Your task to perform on an android device: change timer sound Image 0: 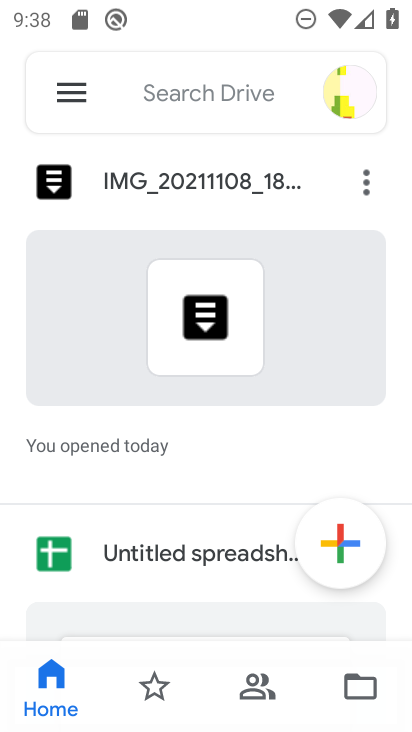
Step 0: press home button
Your task to perform on an android device: change timer sound Image 1: 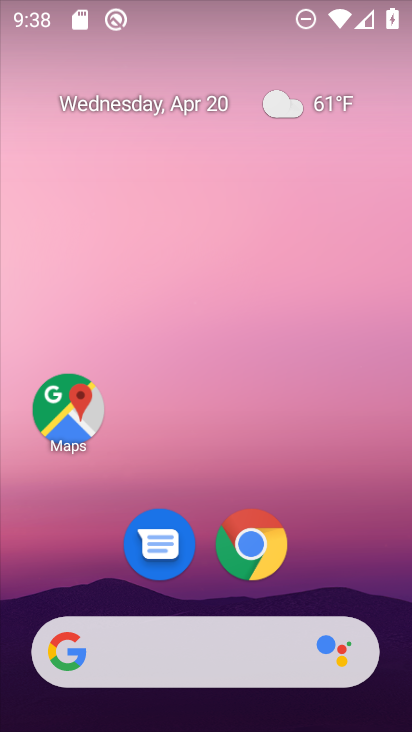
Step 1: drag from (320, 502) to (291, 16)
Your task to perform on an android device: change timer sound Image 2: 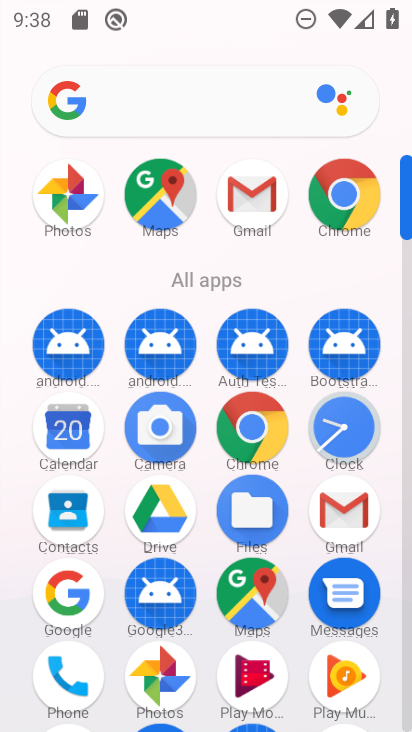
Step 2: click (342, 431)
Your task to perform on an android device: change timer sound Image 3: 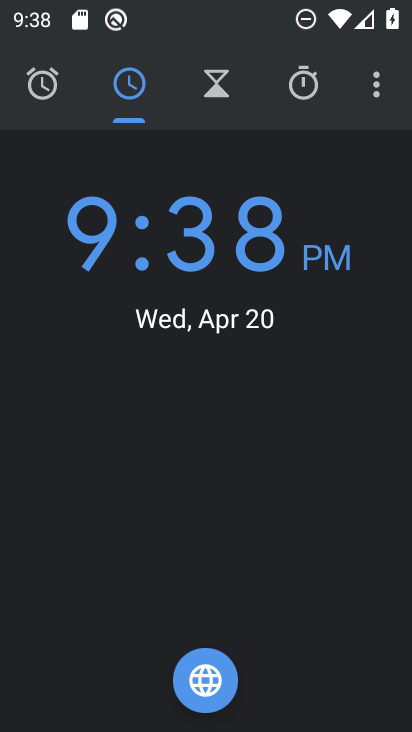
Step 3: click (389, 96)
Your task to perform on an android device: change timer sound Image 4: 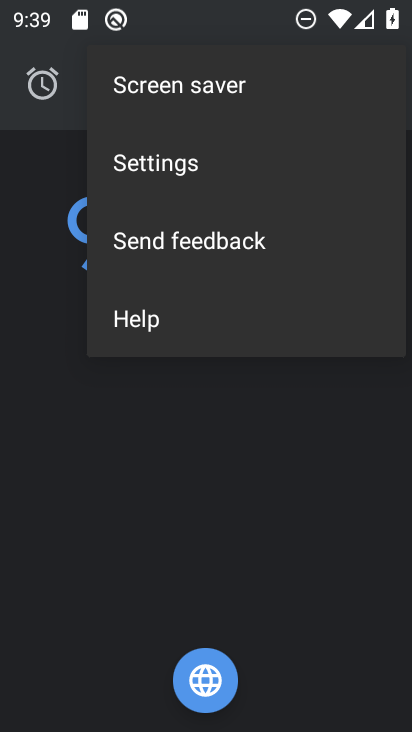
Step 4: click (244, 163)
Your task to perform on an android device: change timer sound Image 5: 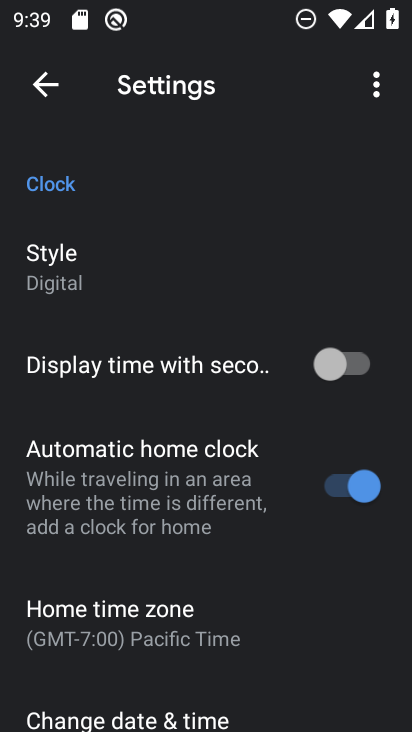
Step 5: drag from (268, 642) to (237, 290)
Your task to perform on an android device: change timer sound Image 6: 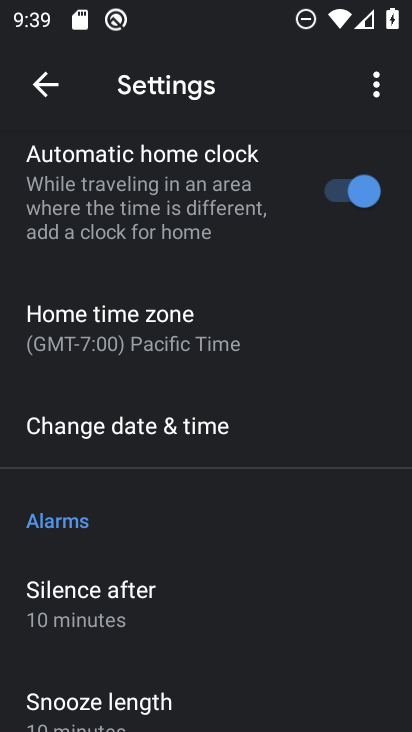
Step 6: drag from (256, 661) to (260, 7)
Your task to perform on an android device: change timer sound Image 7: 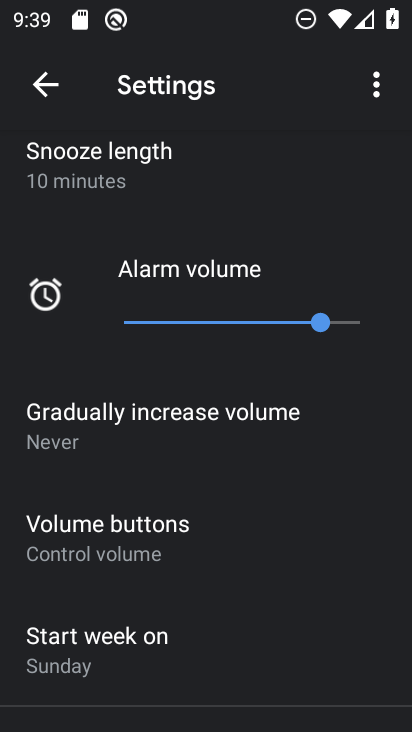
Step 7: drag from (213, 580) to (203, 157)
Your task to perform on an android device: change timer sound Image 8: 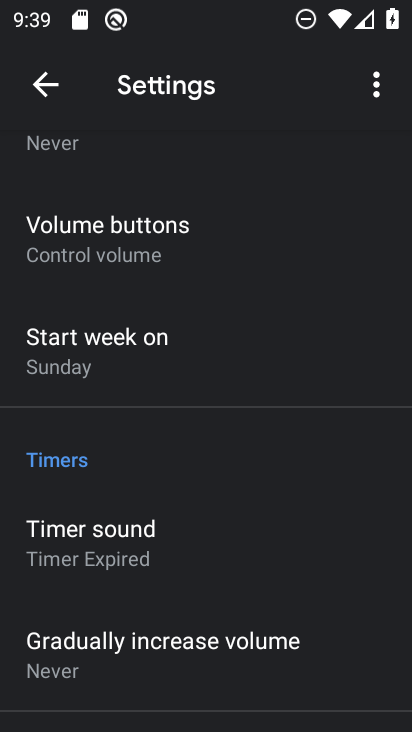
Step 8: click (143, 558)
Your task to perform on an android device: change timer sound Image 9: 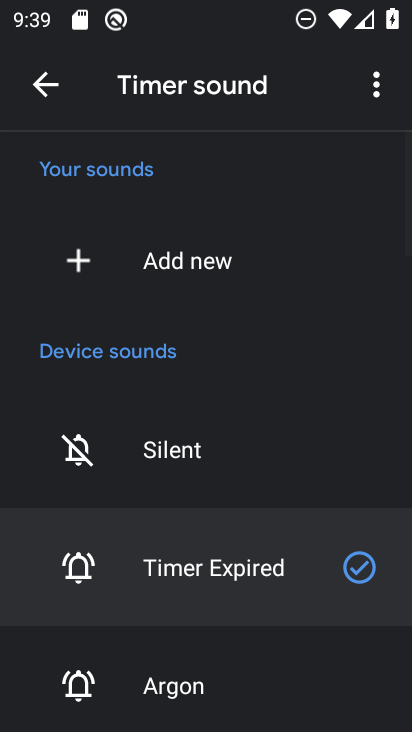
Step 9: click (220, 688)
Your task to perform on an android device: change timer sound Image 10: 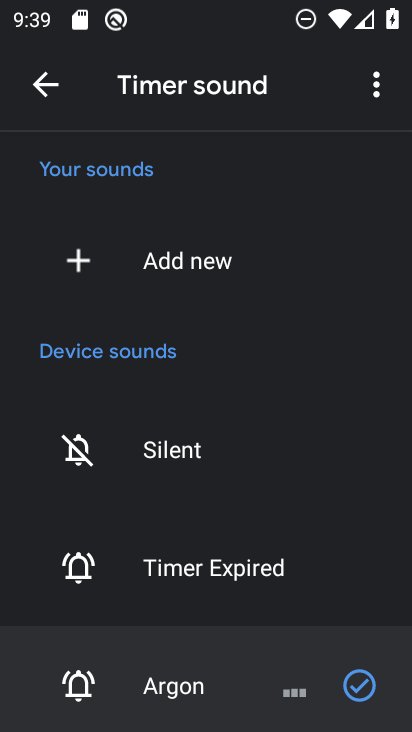
Step 10: task complete